Your task to perform on an android device: turn off improve location accuracy Image 0: 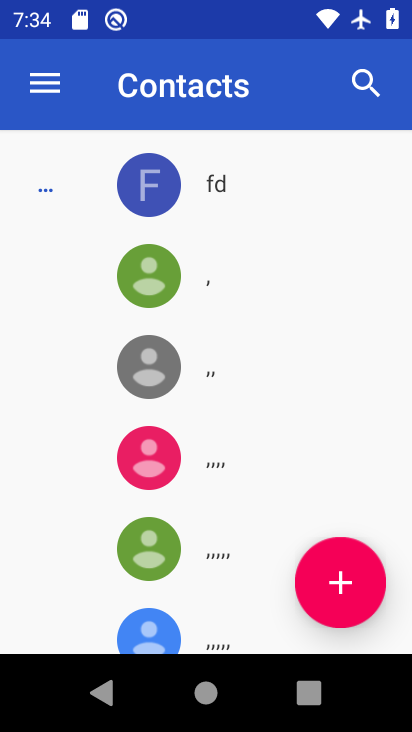
Step 0: press home button
Your task to perform on an android device: turn off improve location accuracy Image 1: 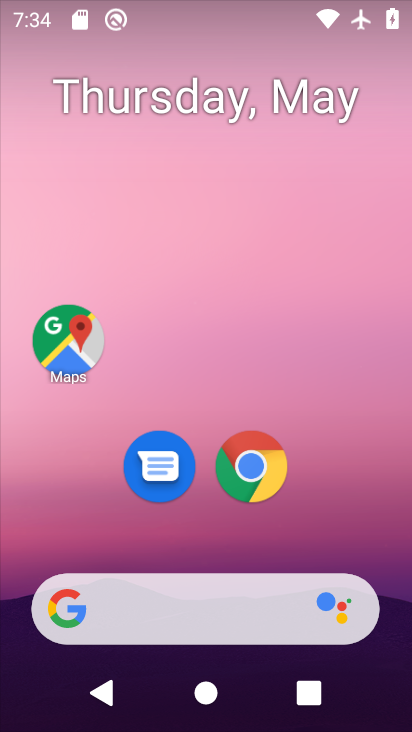
Step 1: drag from (343, 395) to (269, 125)
Your task to perform on an android device: turn off improve location accuracy Image 2: 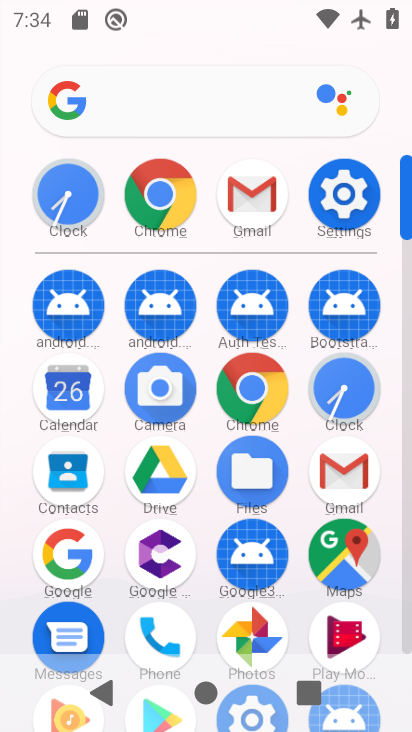
Step 2: click (342, 173)
Your task to perform on an android device: turn off improve location accuracy Image 3: 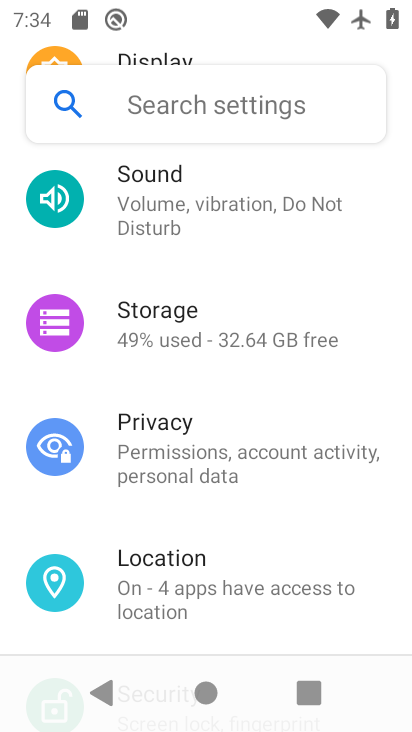
Step 3: click (202, 577)
Your task to perform on an android device: turn off improve location accuracy Image 4: 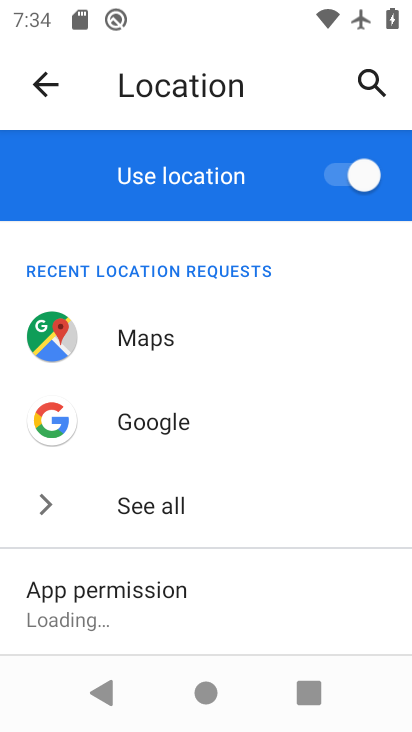
Step 4: task complete